Your task to perform on an android device: open chrome privacy settings Image 0: 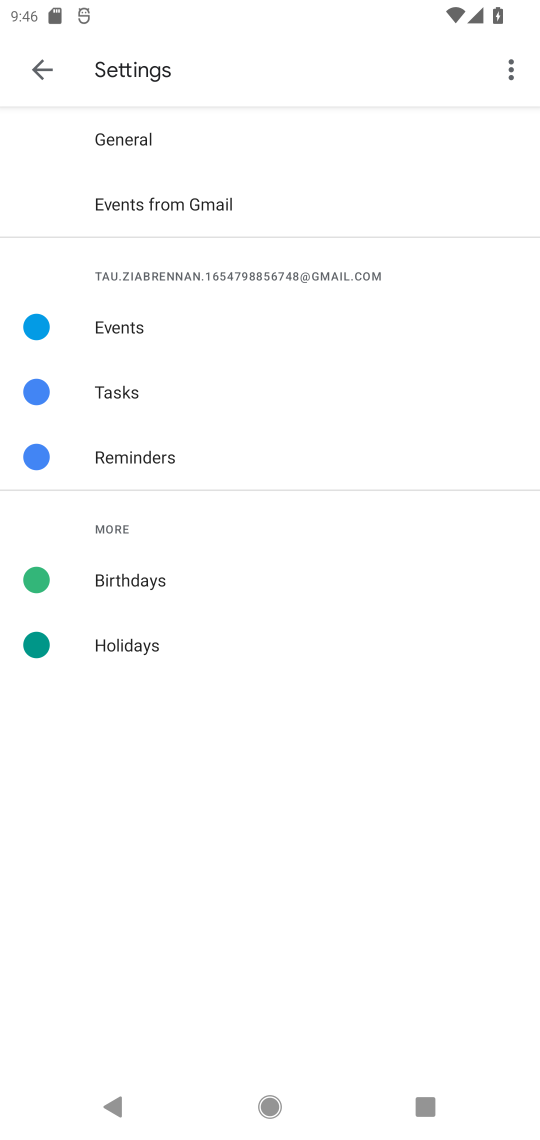
Step 0: press home button
Your task to perform on an android device: open chrome privacy settings Image 1: 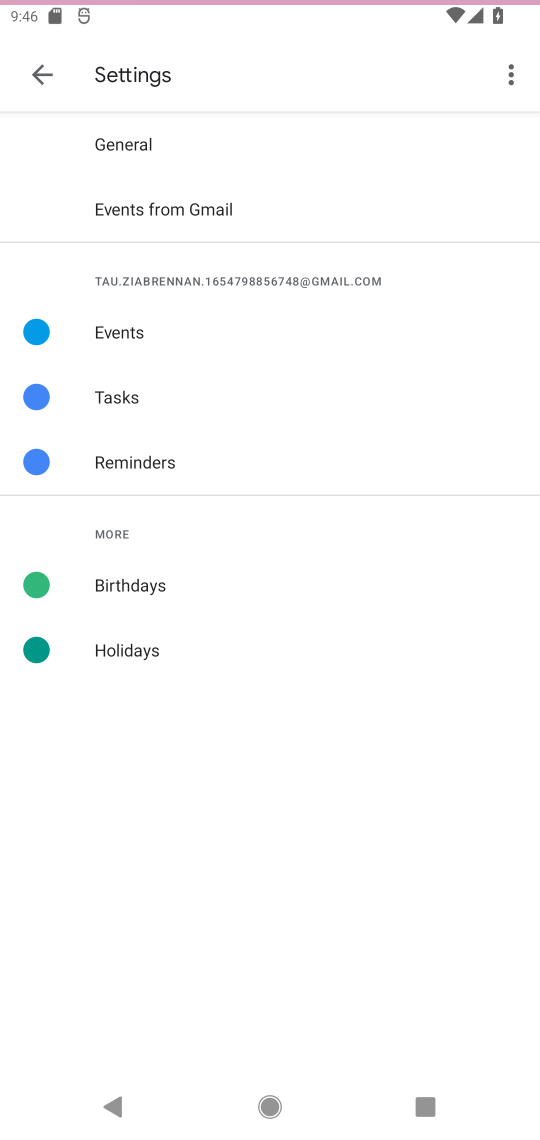
Step 1: press home button
Your task to perform on an android device: open chrome privacy settings Image 2: 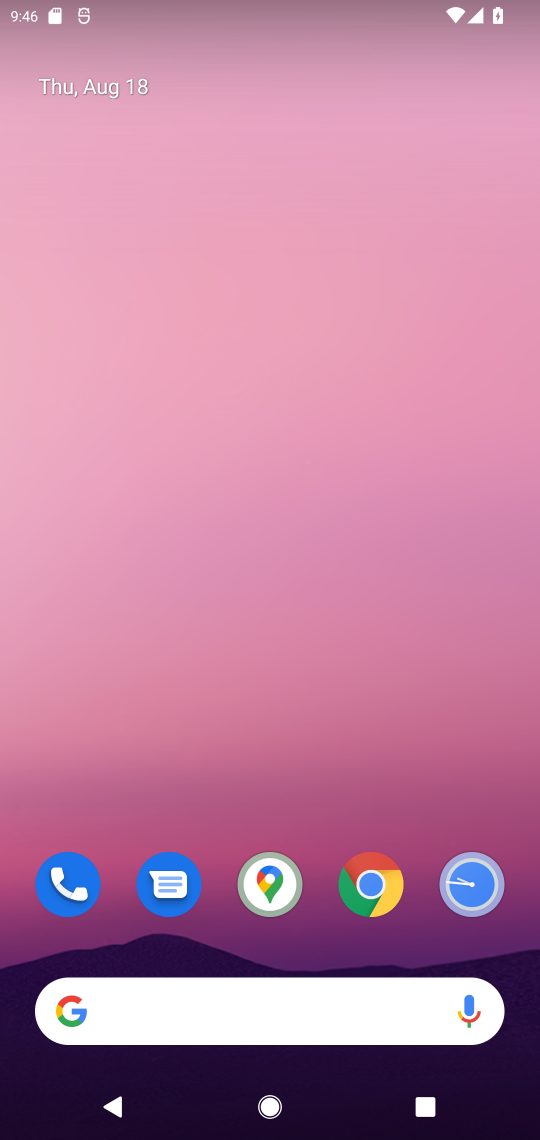
Step 2: click (367, 875)
Your task to perform on an android device: open chrome privacy settings Image 3: 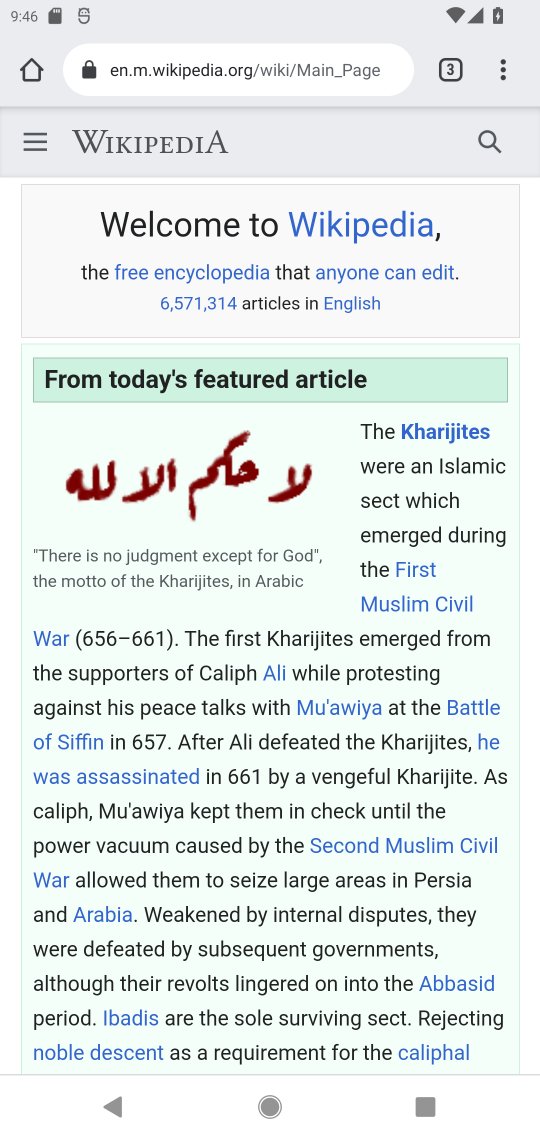
Step 3: click (509, 59)
Your task to perform on an android device: open chrome privacy settings Image 4: 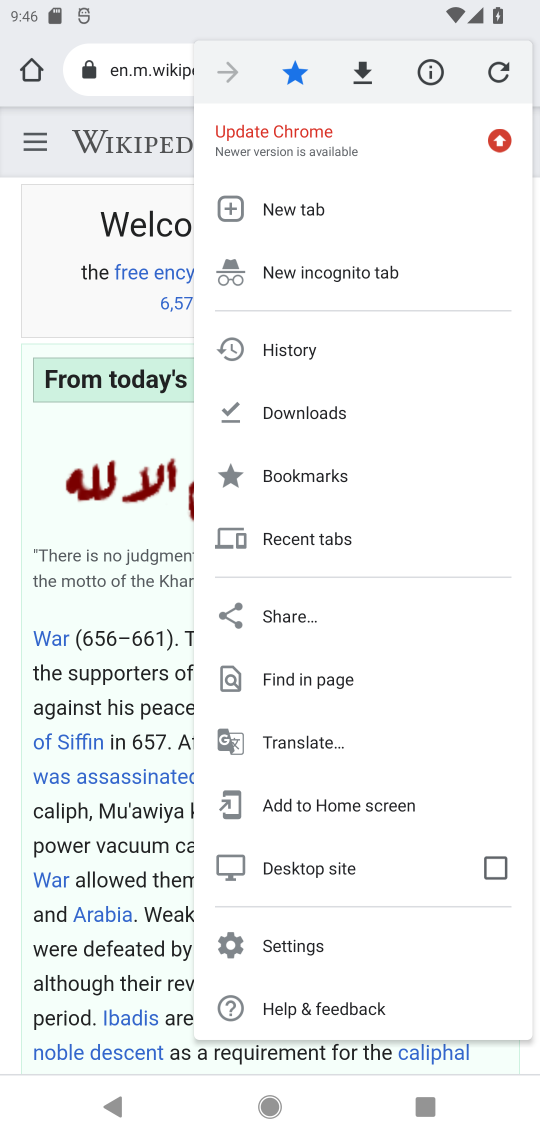
Step 4: click (293, 948)
Your task to perform on an android device: open chrome privacy settings Image 5: 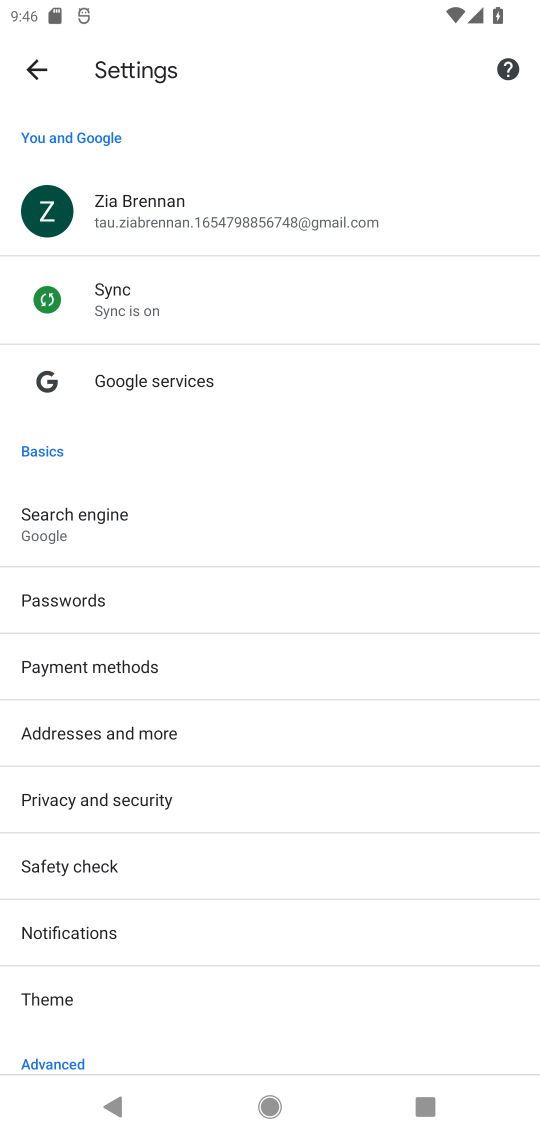
Step 5: drag from (187, 984) to (270, 299)
Your task to perform on an android device: open chrome privacy settings Image 6: 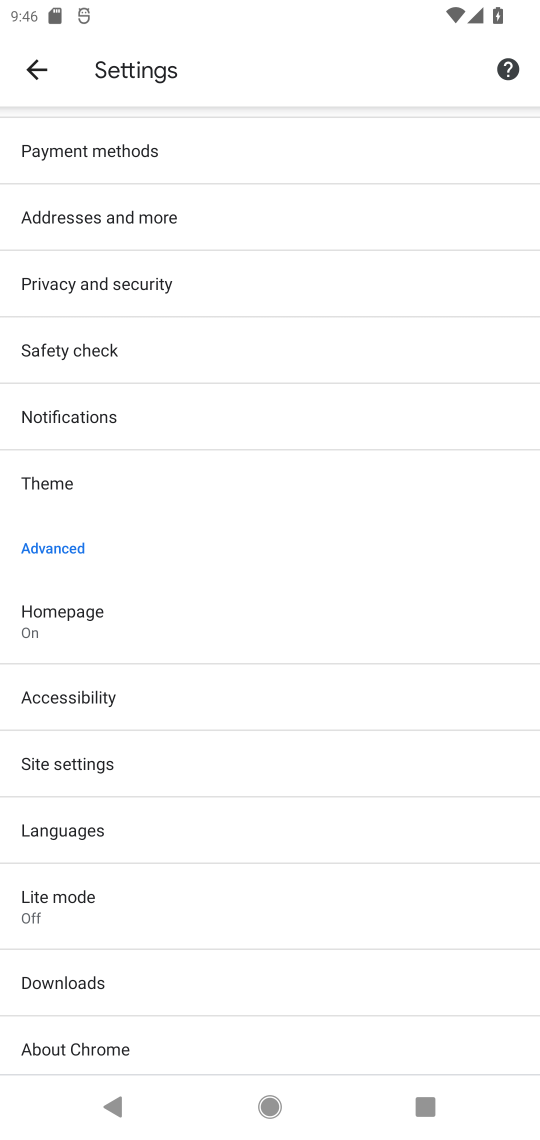
Step 6: drag from (195, 1037) to (250, 286)
Your task to perform on an android device: open chrome privacy settings Image 7: 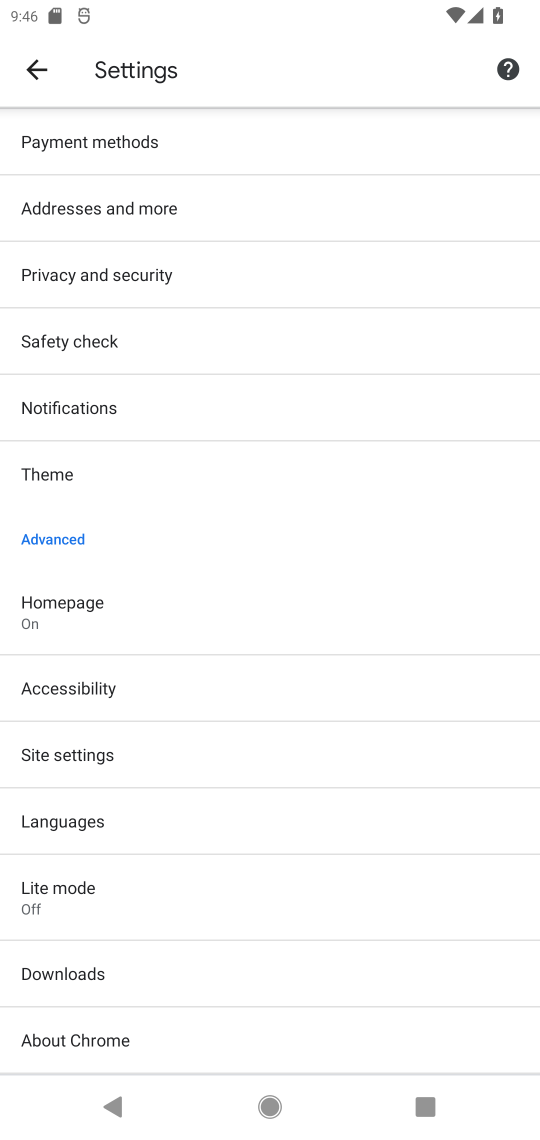
Step 7: click (141, 758)
Your task to perform on an android device: open chrome privacy settings Image 8: 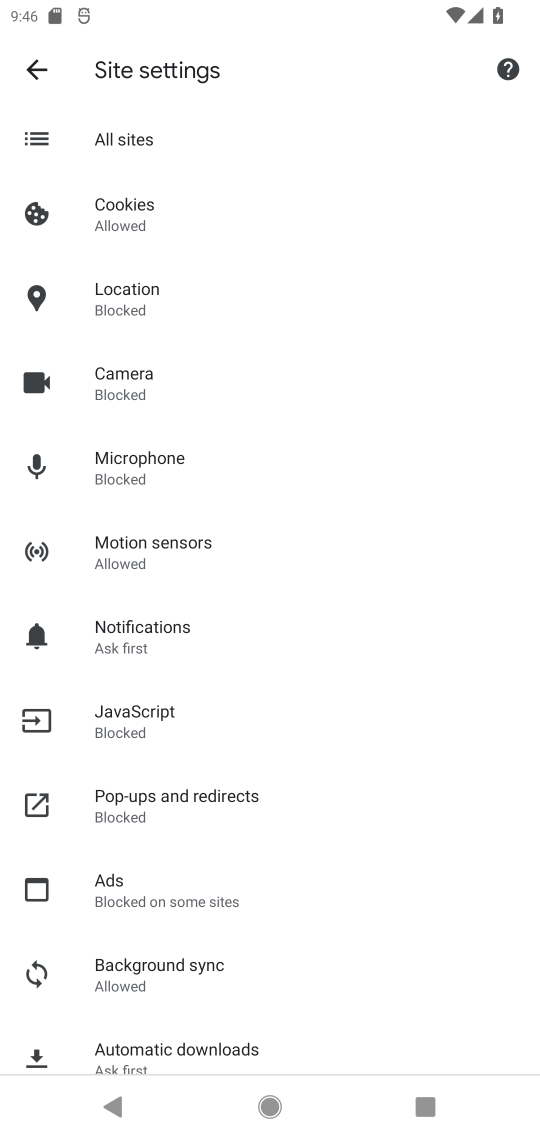
Step 8: drag from (257, 266) to (363, 934)
Your task to perform on an android device: open chrome privacy settings Image 9: 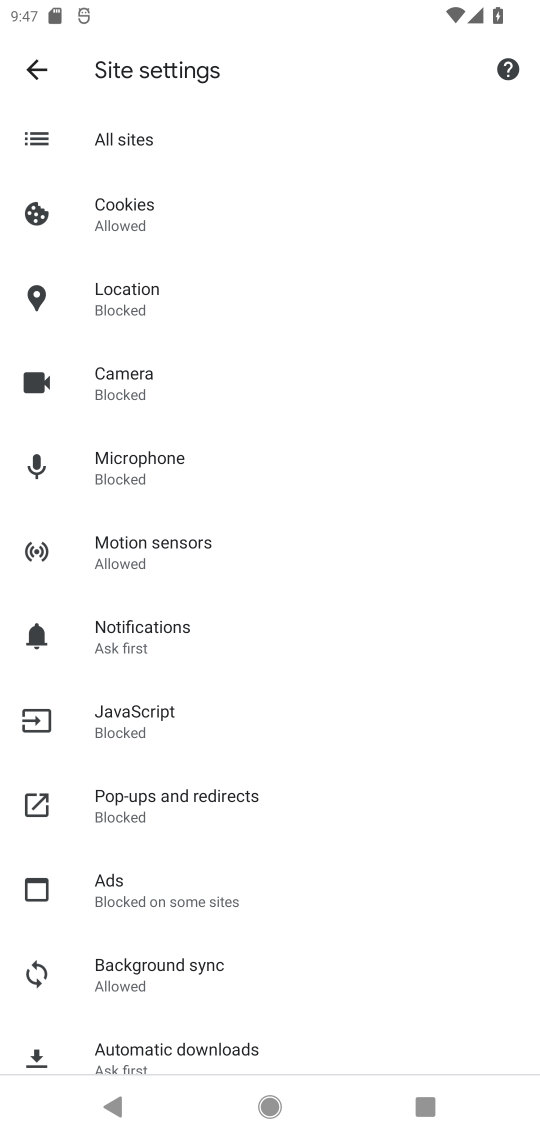
Step 9: drag from (363, 934) to (321, 206)
Your task to perform on an android device: open chrome privacy settings Image 10: 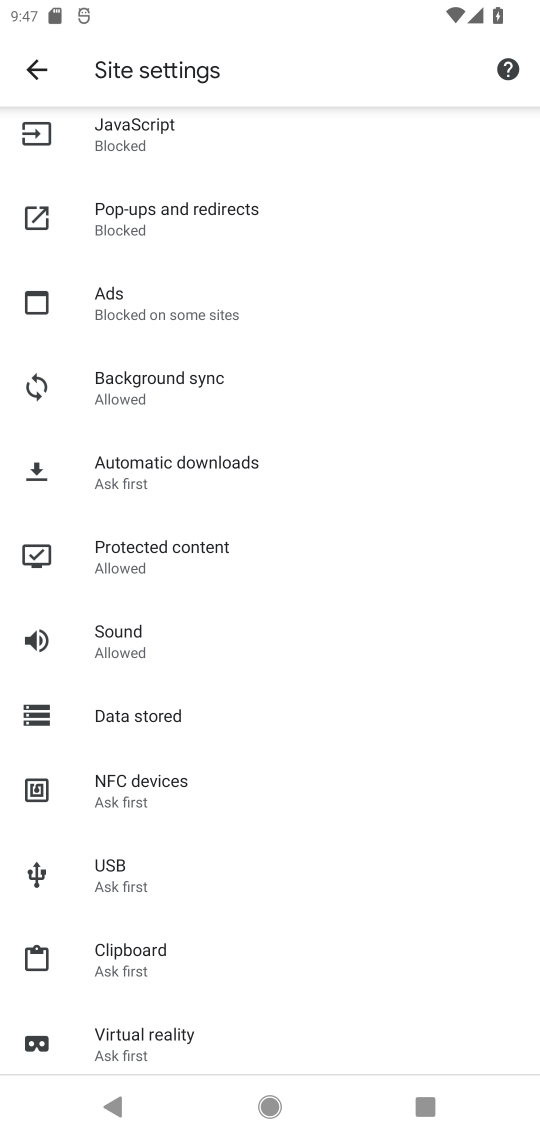
Step 10: drag from (187, 990) to (179, 386)
Your task to perform on an android device: open chrome privacy settings Image 11: 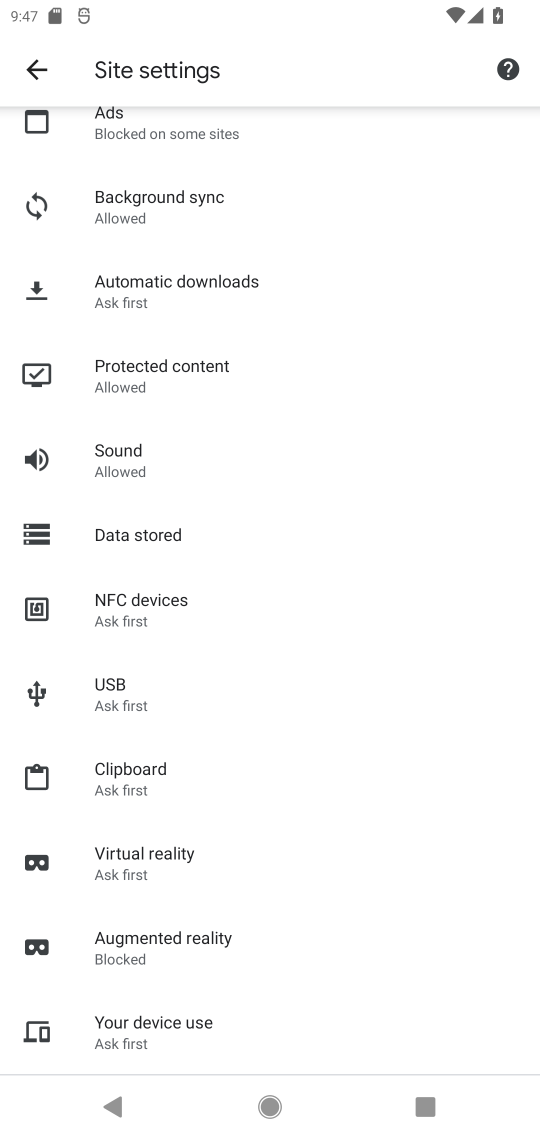
Step 11: drag from (270, 951) to (268, 366)
Your task to perform on an android device: open chrome privacy settings Image 12: 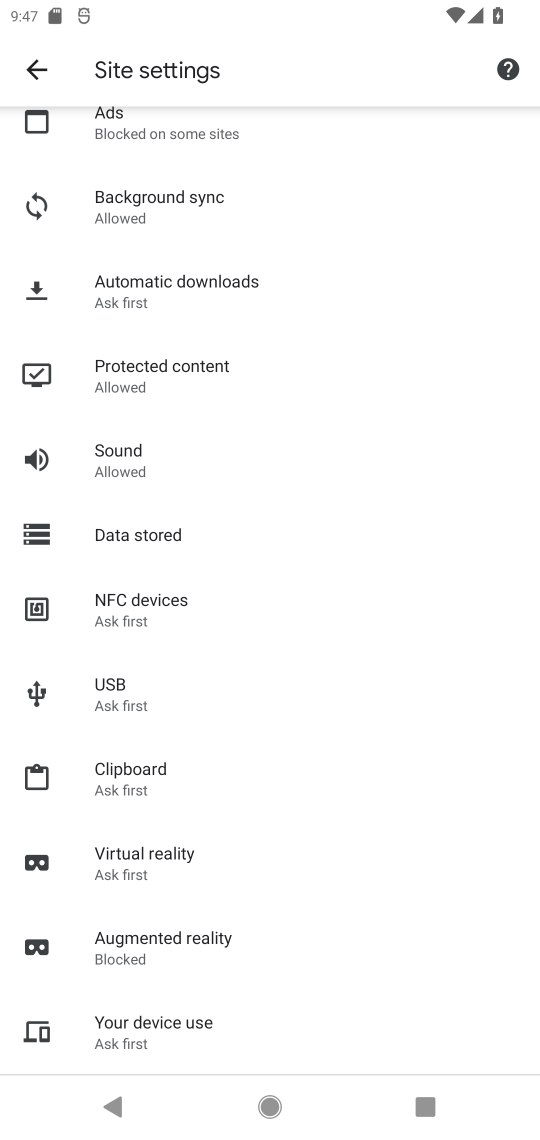
Step 12: click (43, 67)
Your task to perform on an android device: open chrome privacy settings Image 13: 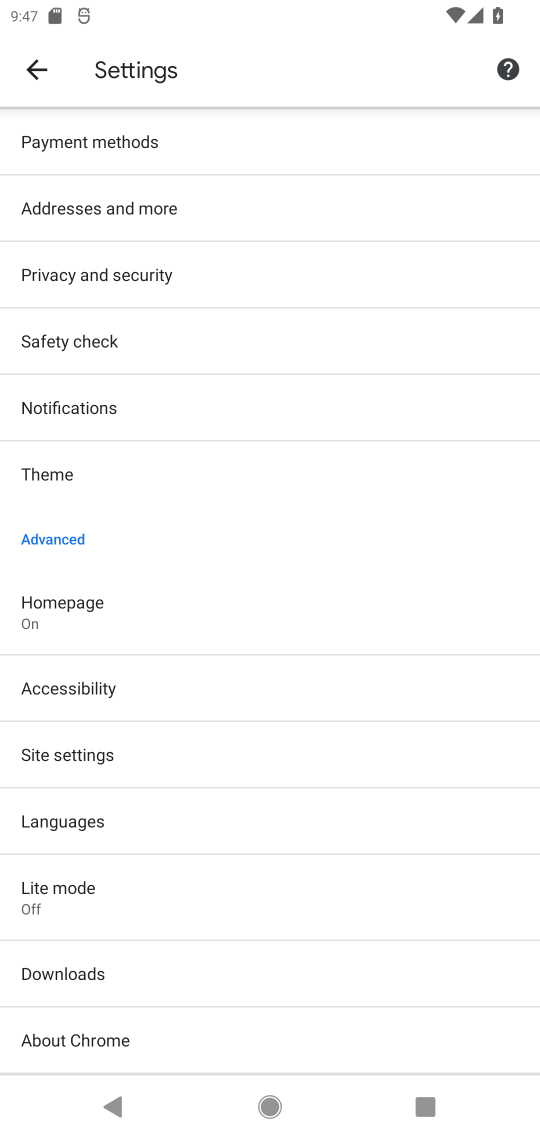
Step 13: drag from (287, 178) to (259, 903)
Your task to perform on an android device: open chrome privacy settings Image 14: 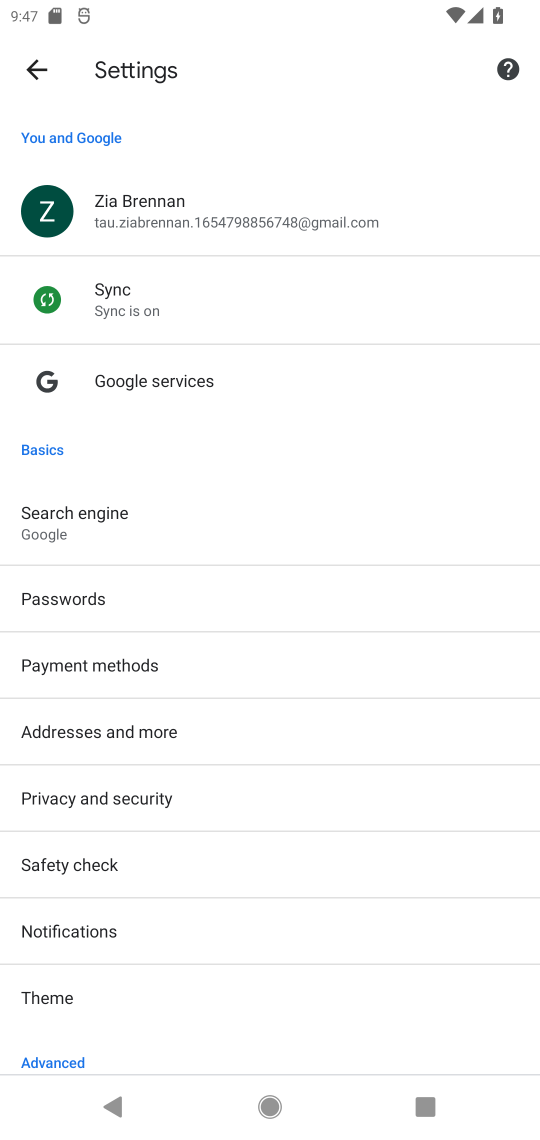
Step 14: click (138, 807)
Your task to perform on an android device: open chrome privacy settings Image 15: 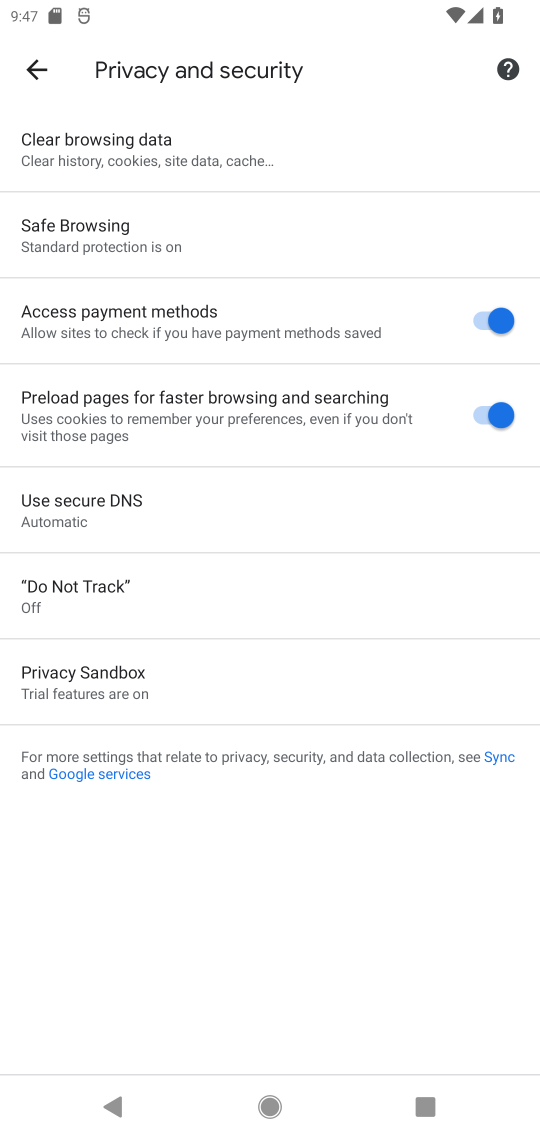
Step 15: task complete